Your task to perform on an android device: set the timer Image 0: 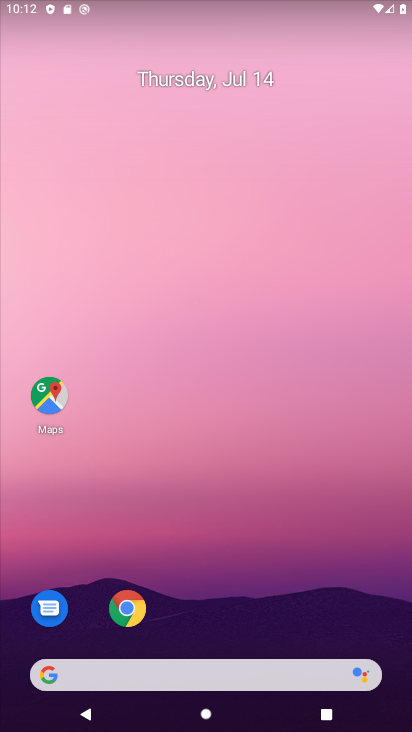
Step 0: drag from (248, 720) to (244, 158)
Your task to perform on an android device: set the timer Image 1: 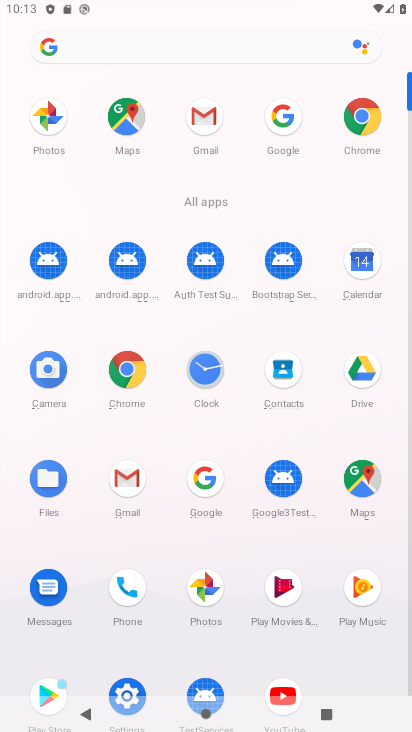
Step 1: click (213, 371)
Your task to perform on an android device: set the timer Image 2: 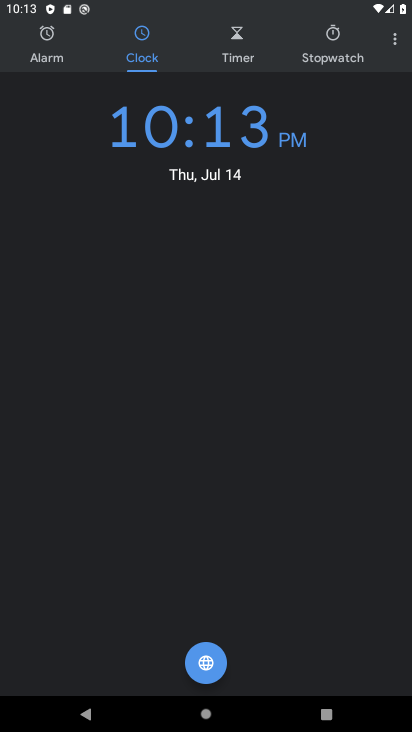
Step 2: click (232, 46)
Your task to perform on an android device: set the timer Image 3: 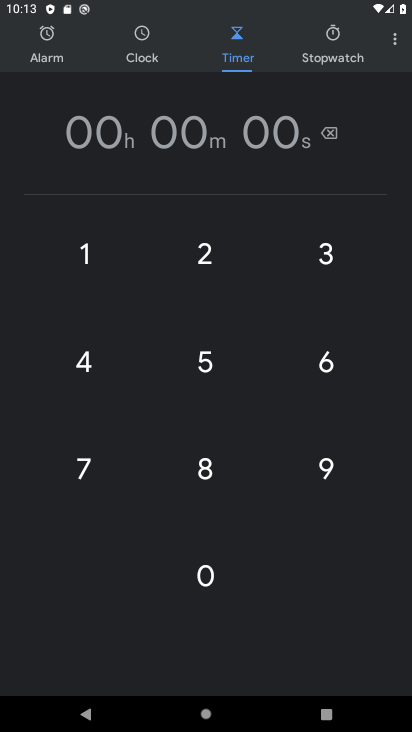
Step 3: click (202, 254)
Your task to perform on an android device: set the timer Image 4: 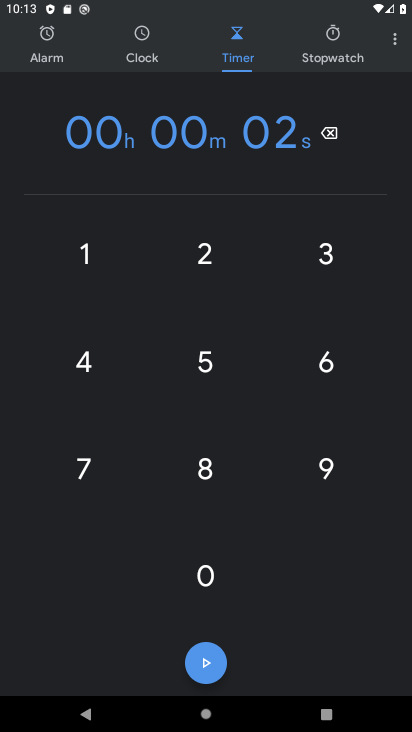
Step 4: click (203, 365)
Your task to perform on an android device: set the timer Image 5: 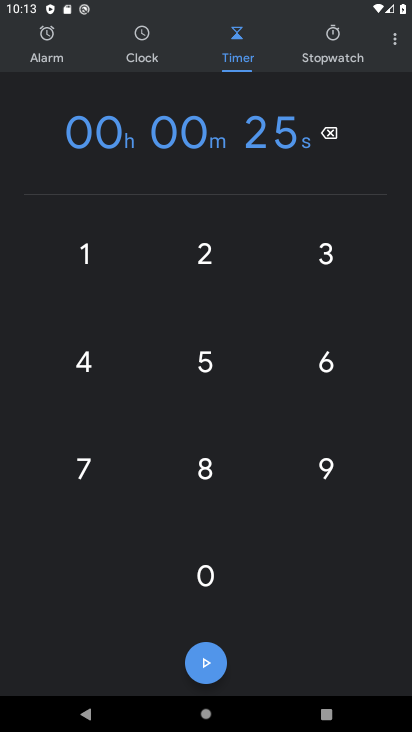
Step 5: click (89, 362)
Your task to perform on an android device: set the timer Image 6: 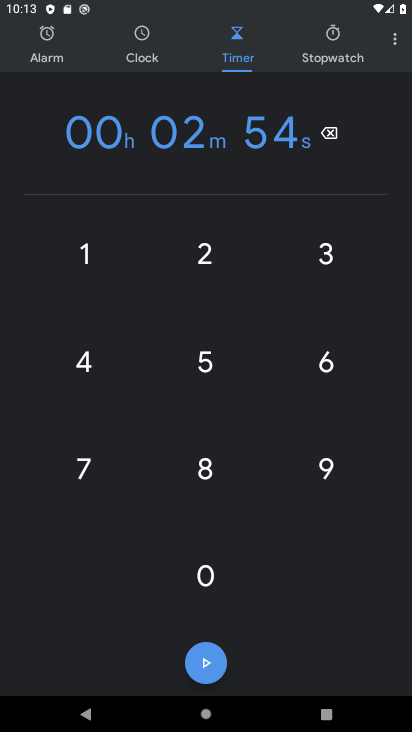
Step 6: click (208, 662)
Your task to perform on an android device: set the timer Image 7: 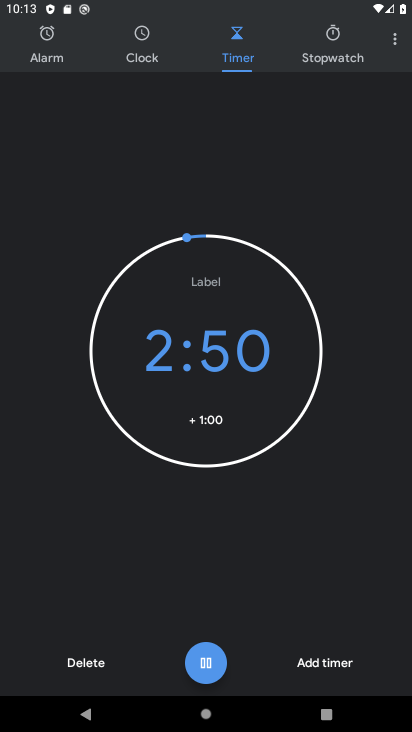
Step 7: task complete